Your task to perform on an android device: Open notification settings Image 0: 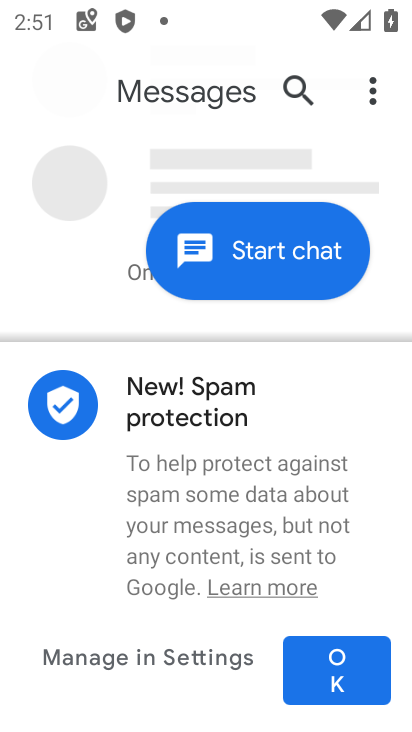
Step 0: press back button
Your task to perform on an android device: Open notification settings Image 1: 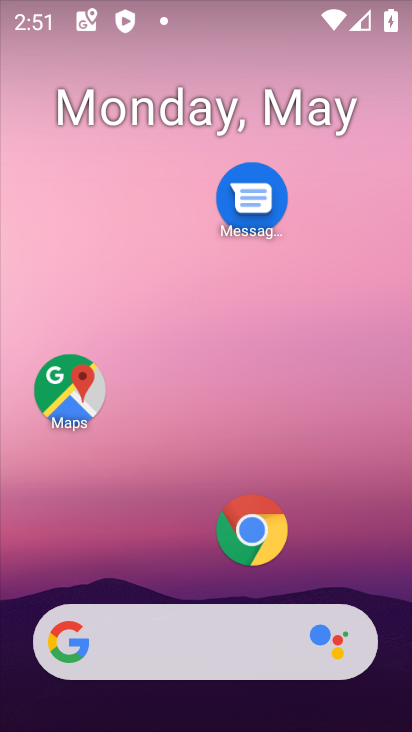
Step 1: drag from (196, 554) to (318, 55)
Your task to perform on an android device: Open notification settings Image 2: 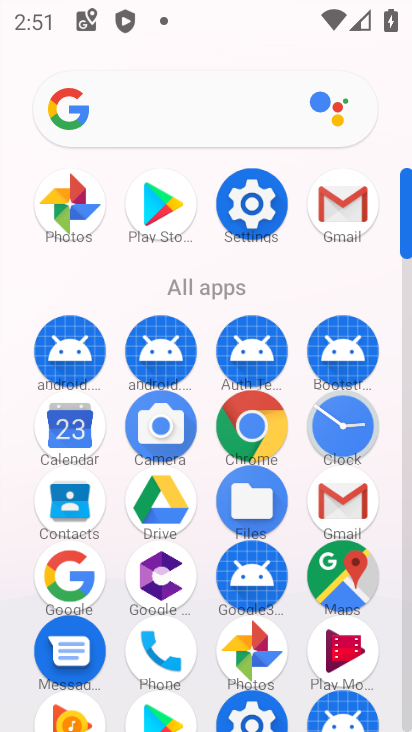
Step 2: click (250, 189)
Your task to perform on an android device: Open notification settings Image 3: 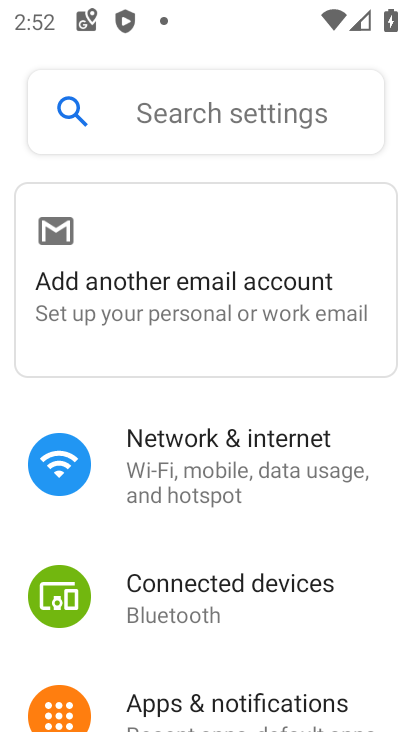
Step 3: click (202, 713)
Your task to perform on an android device: Open notification settings Image 4: 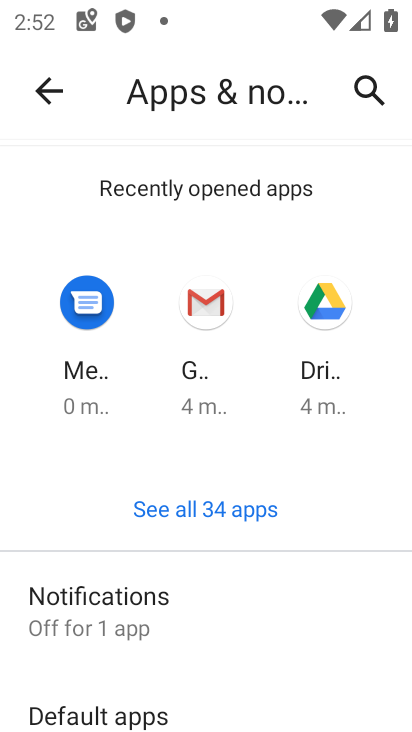
Step 4: task complete